Your task to perform on an android device: open a bookmark in the chrome app Image 0: 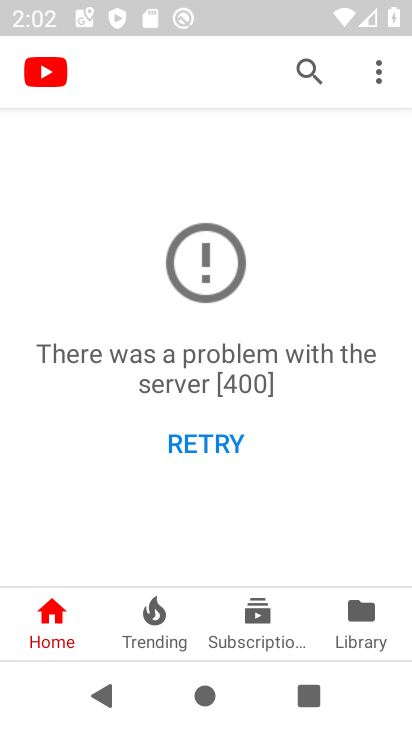
Step 0: press home button
Your task to perform on an android device: open a bookmark in the chrome app Image 1: 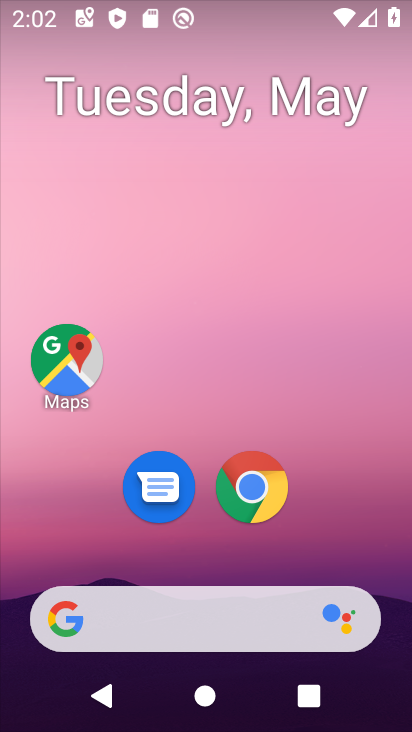
Step 1: click (286, 487)
Your task to perform on an android device: open a bookmark in the chrome app Image 2: 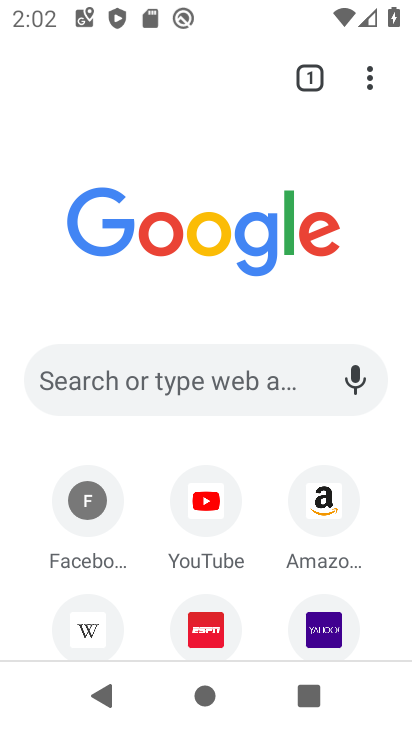
Step 2: click (372, 68)
Your task to perform on an android device: open a bookmark in the chrome app Image 3: 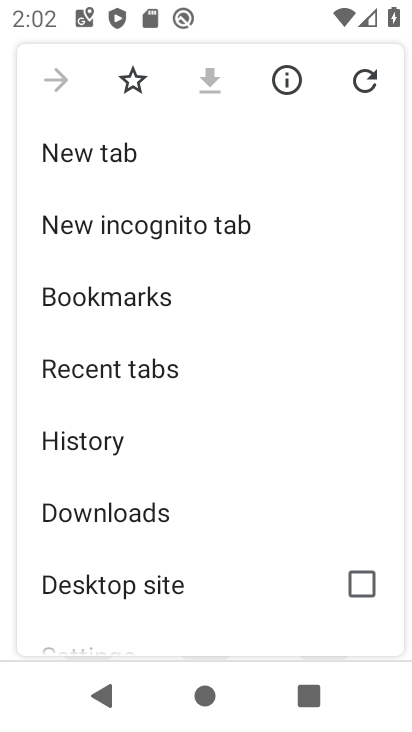
Step 3: click (125, 298)
Your task to perform on an android device: open a bookmark in the chrome app Image 4: 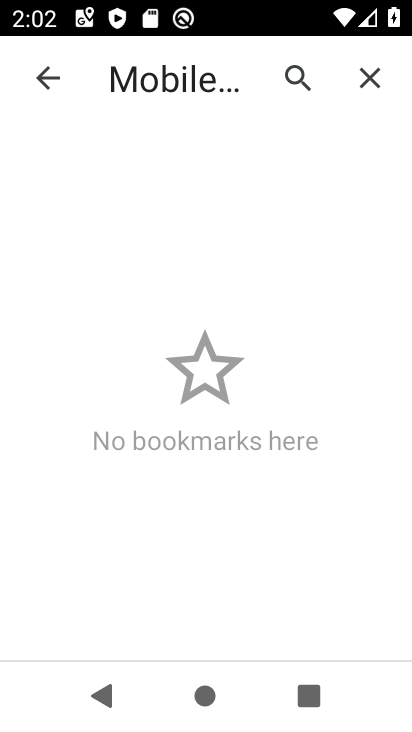
Step 4: task complete